Your task to perform on an android device: Search for "macbook" on walmart, select the first entry, add it to the cart, then select checkout. Image 0: 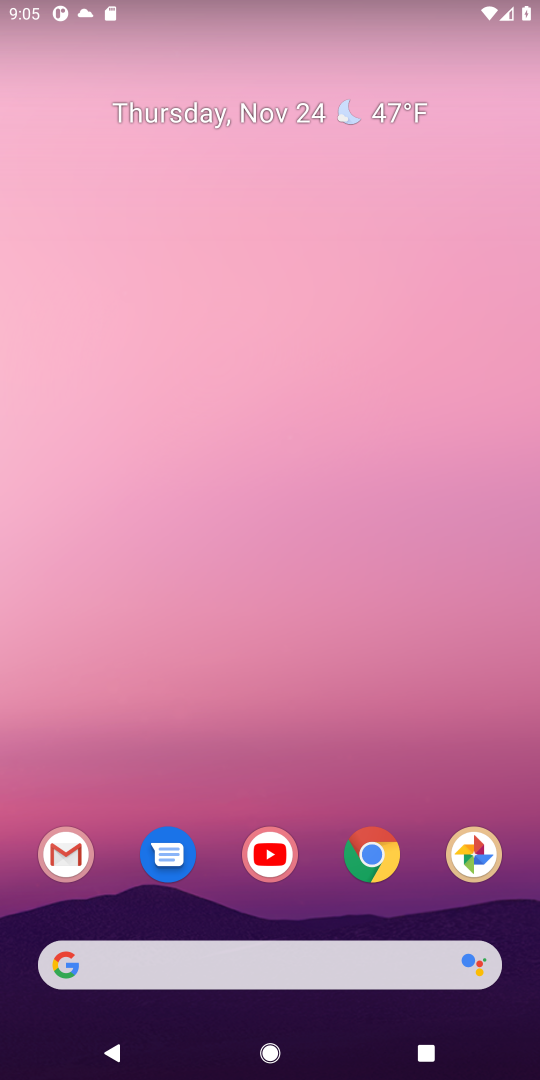
Step 0: click (371, 852)
Your task to perform on an android device: Search for "macbook" on walmart, select the first entry, add it to the cart, then select checkout. Image 1: 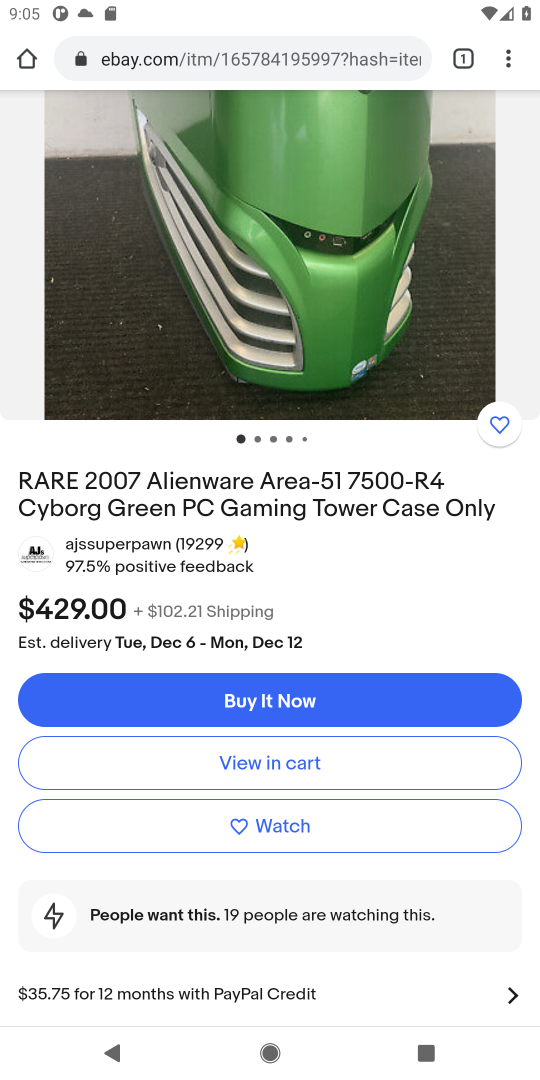
Step 1: click (210, 61)
Your task to perform on an android device: Search for "macbook" on walmart, select the first entry, add it to the cart, then select checkout. Image 2: 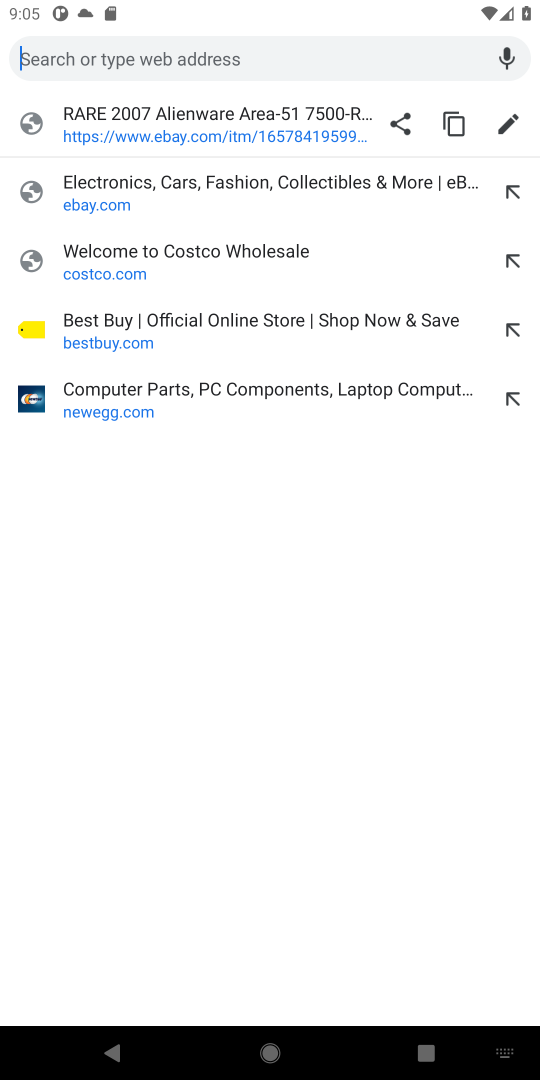
Step 2: type "walmart.com"
Your task to perform on an android device: Search for "macbook" on walmart, select the first entry, add it to the cart, then select checkout. Image 3: 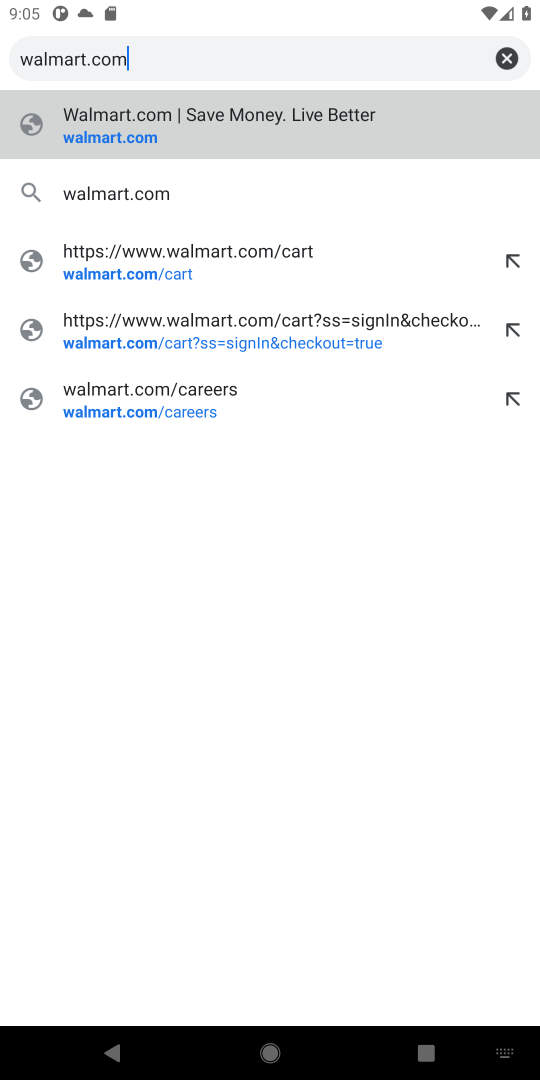
Step 3: click (119, 139)
Your task to perform on an android device: Search for "macbook" on walmart, select the first entry, add it to the cart, then select checkout. Image 4: 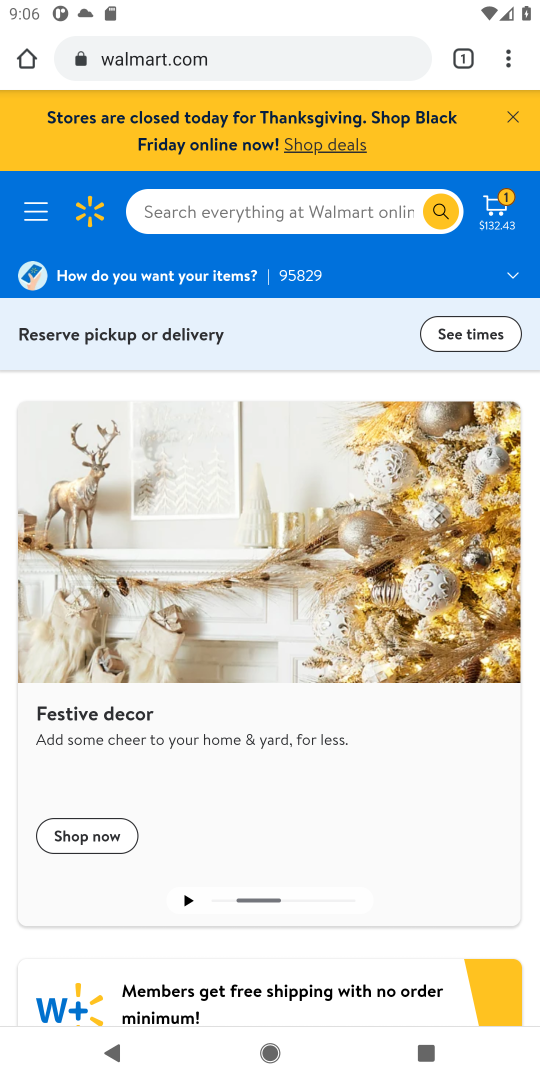
Step 4: click (224, 210)
Your task to perform on an android device: Search for "macbook" on walmart, select the first entry, add it to the cart, then select checkout. Image 5: 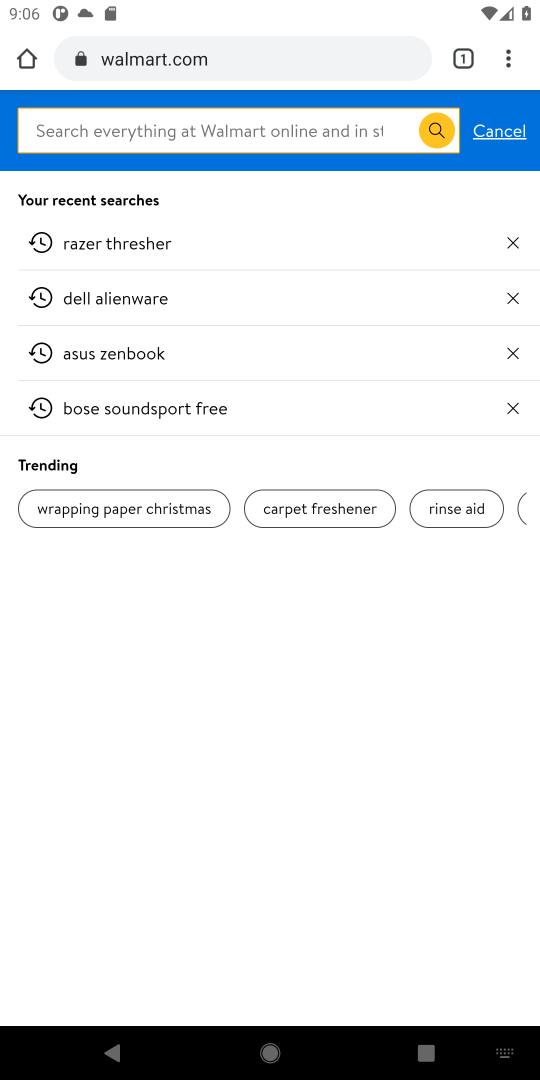
Step 5: type "macbook"
Your task to perform on an android device: Search for "macbook" on walmart, select the first entry, add it to the cart, then select checkout. Image 6: 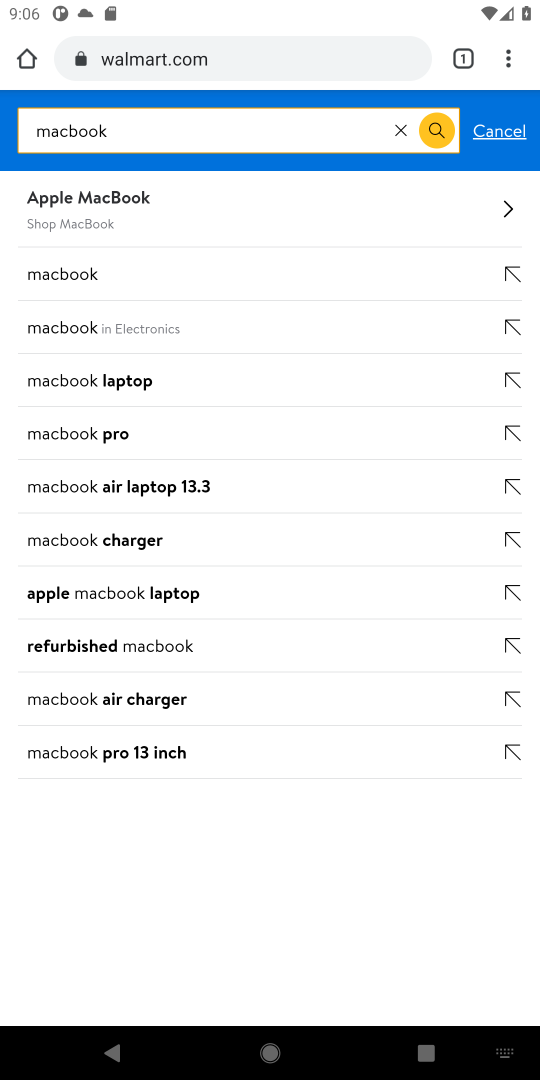
Step 6: click (56, 282)
Your task to perform on an android device: Search for "macbook" on walmart, select the first entry, add it to the cart, then select checkout. Image 7: 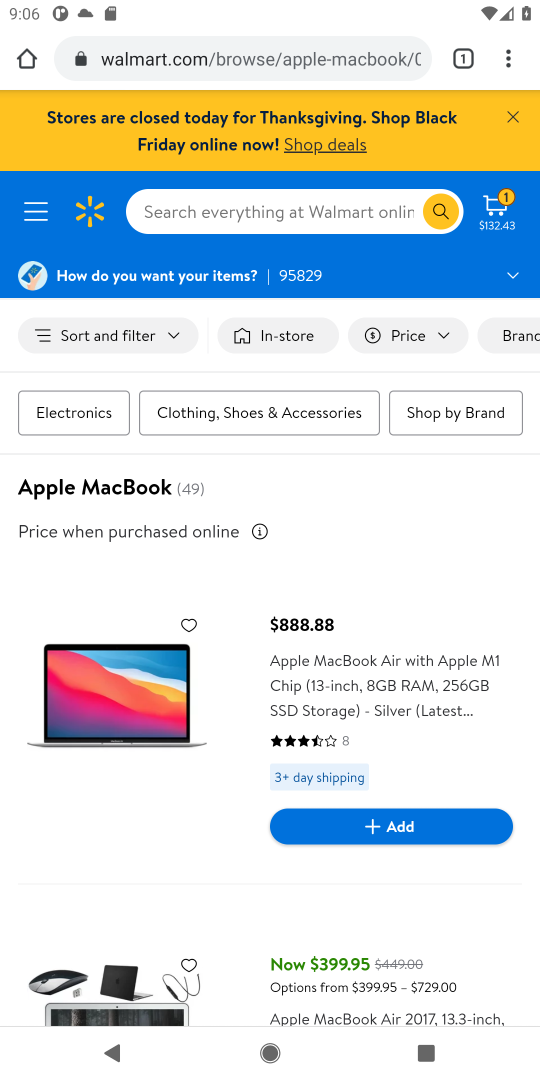
Step 7: click (391, 834)
Your task to perform on an android device: Search for "macbook" on walmart, select the first entry, add it to the cart, then select checkout. Image 8: 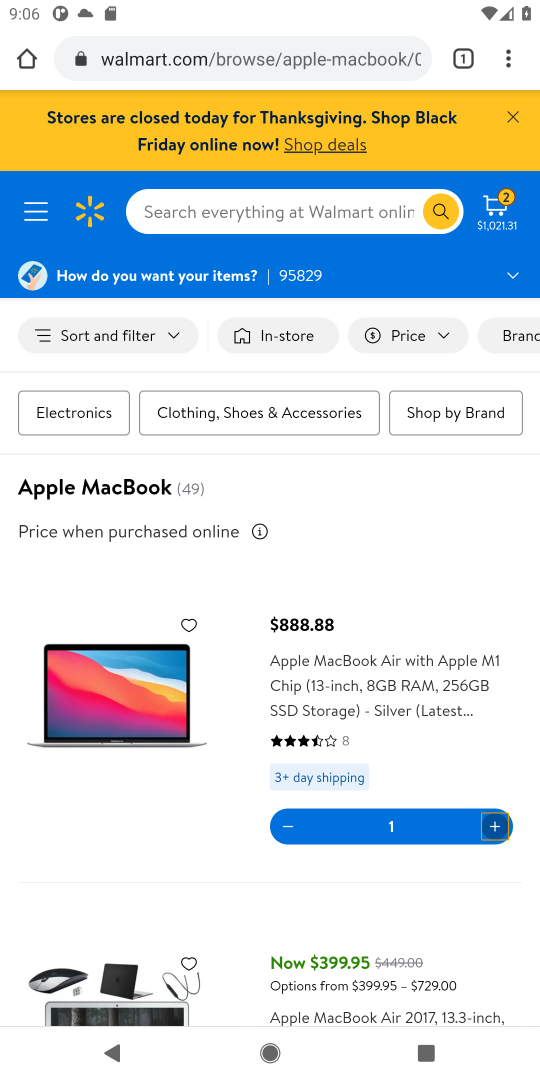
Step 8: click (496, 222)
Your task to perform on an android device: Search for "macbook" on walmart, select the first entry, add it to the cart, then select checkout. Image 9: 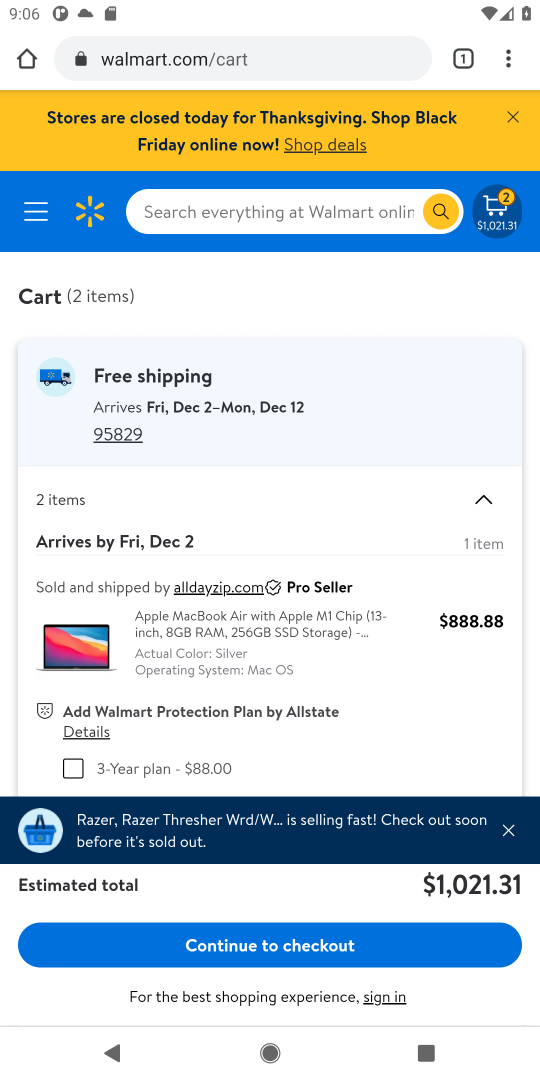
Step 9: click (216, 940)
Your task to perform on an android device: Search for "macbook" on walmart, select the first entry, add it to the cart, then select checkout. Image 10: 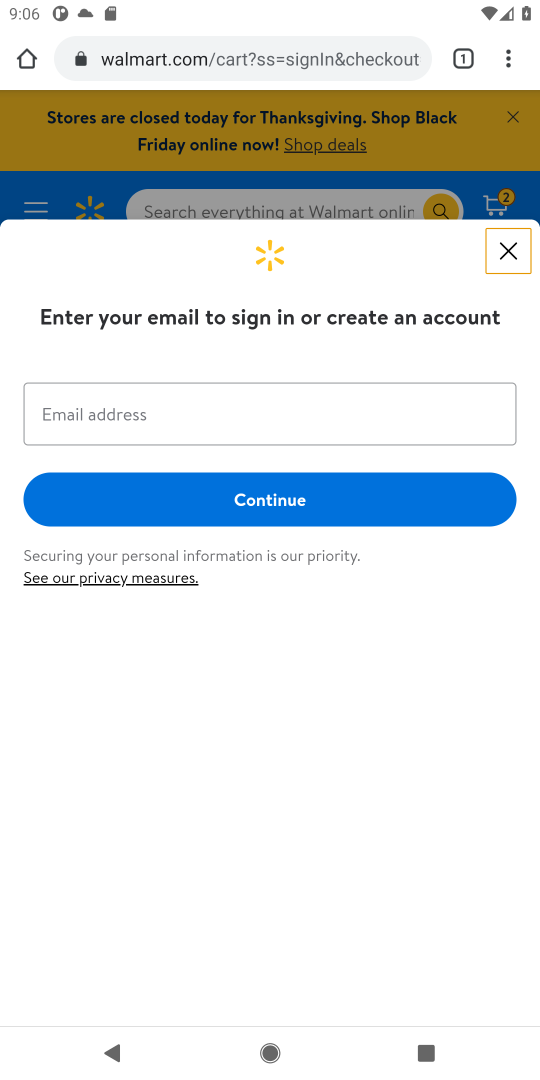
Step 10: task complete